Your task to perform on an android device: What is the speed of a rocket? Image 0: 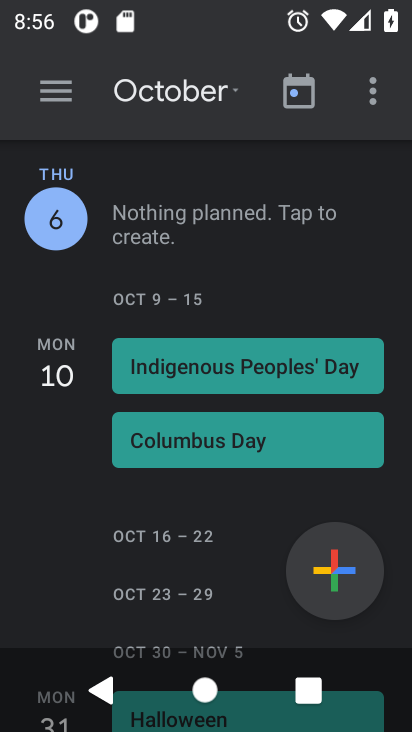
Step 0: task complete